Your task to perform on an android device: change the clock display to show seconds Image 0: 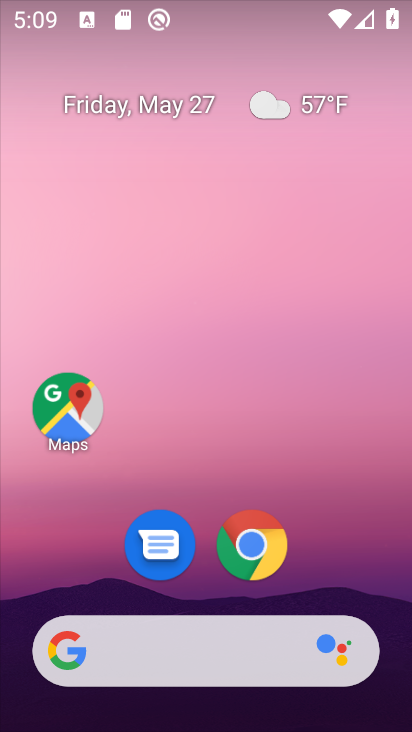
Step 0: drag from (393, 687) to (350, 173)
Your task to perform on an android device: change the clock display to show seconds Image 1: 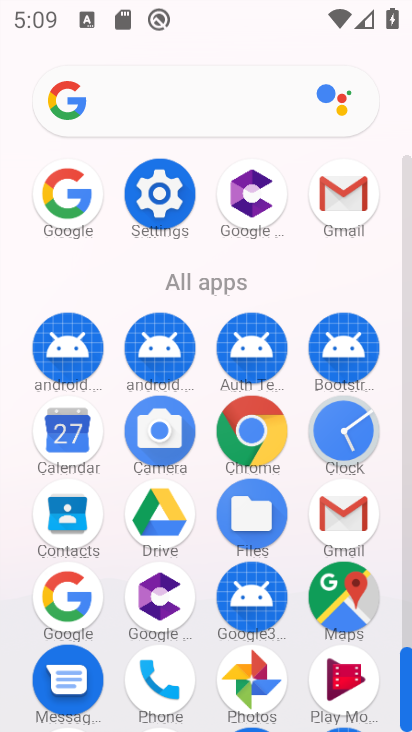
Step 1: click (174, 191)
Your task to perform on an android device: change the clock display to show seconds Image 2: 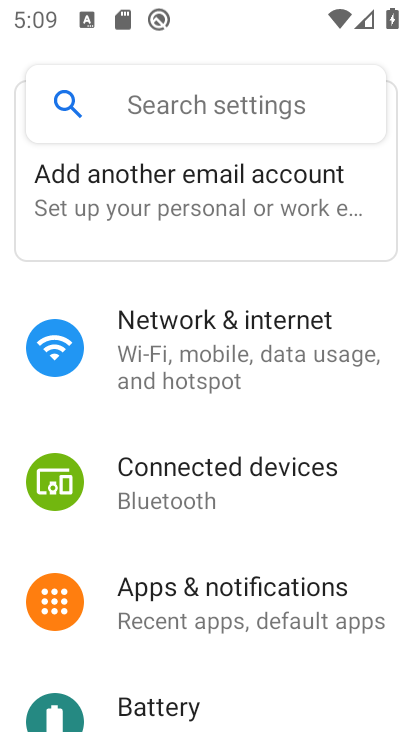
Step 2: press back button
Your task to perform on an android device: change the clock display to show seconds Image 3: 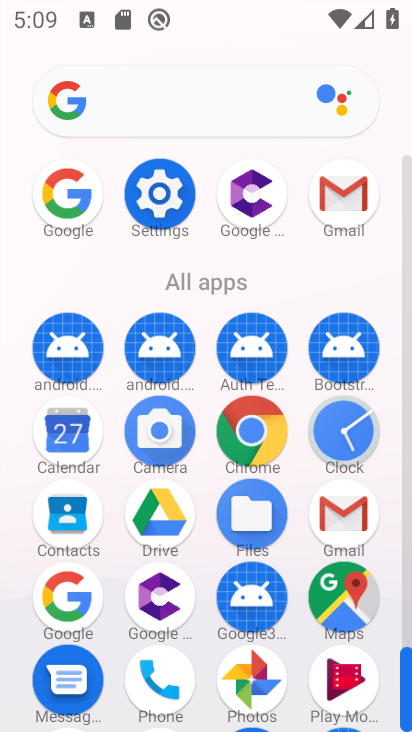
Step 3: click (332, 436)
Your task to perform on an android device: change the clock display to show seconds Image 4: 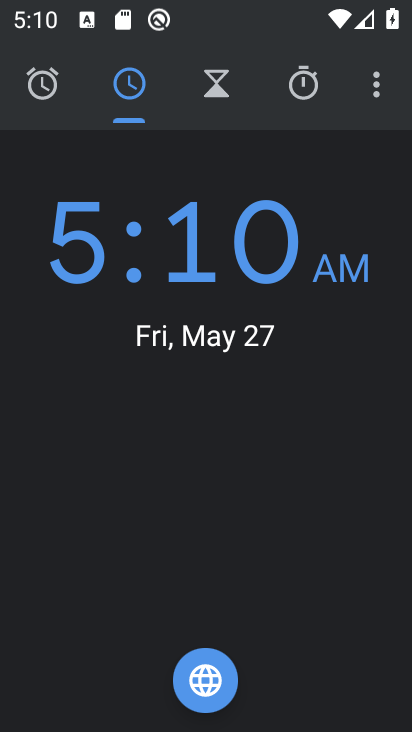
Step 4: click (376, 82)
Your task to perform on an android device: change the clock display to show seconds Image 5: 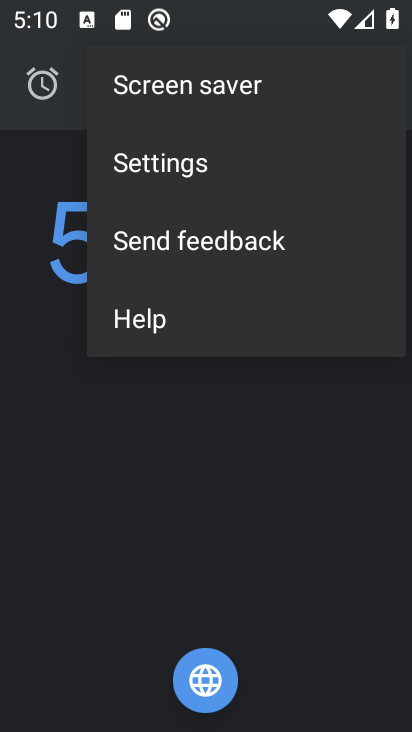
Step 5: click (141, 157)
Your task to perform on an android device: change the clock display to show seconds Image 6: 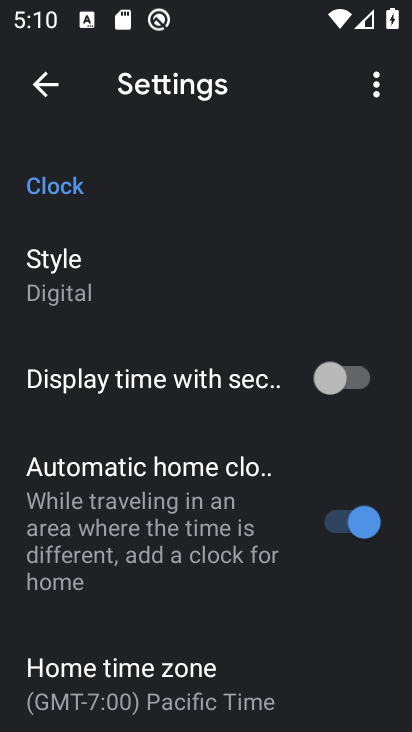
Step 6: click (361, 377)
Your task to perform on an android device: change the clock display to show seconds Image 7: 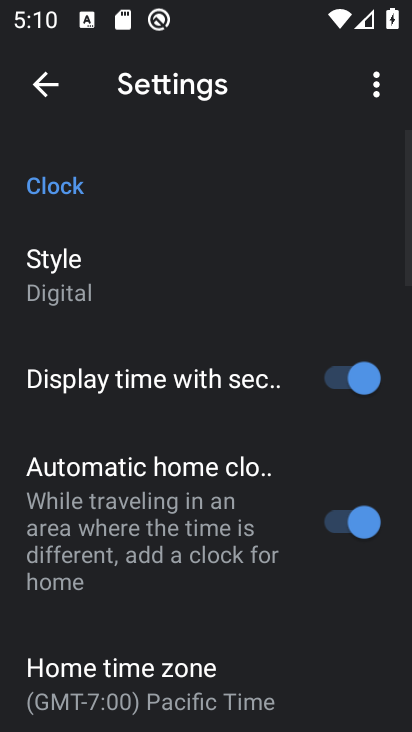
Step 7: task complete